Your task to perform on an android device: Is it going to rain tomorrow? Image 0: 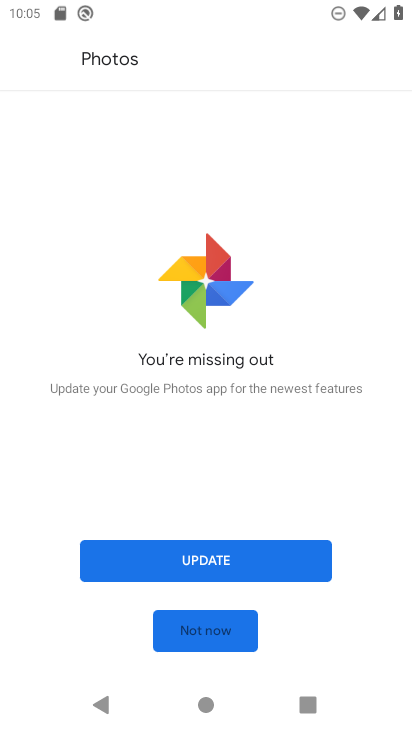
Step 0: click (185, 626)
Your task to perform on an android device: Is it going to rain tomorrow? Image 1: 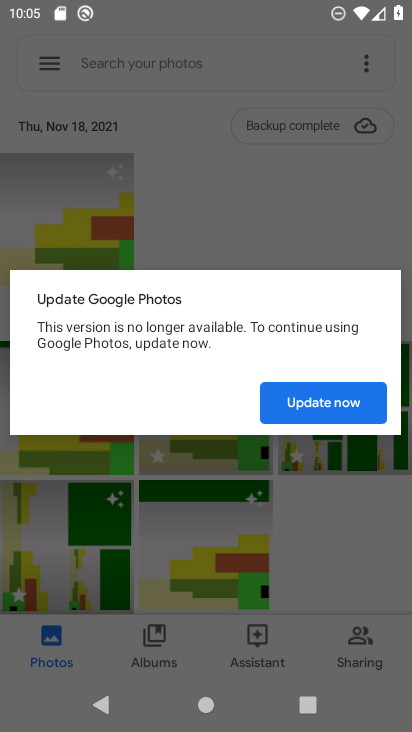
Step 1: click (281, 405)
Your task to perform on an android device: Is it going to rain tomorrow? Image 2: 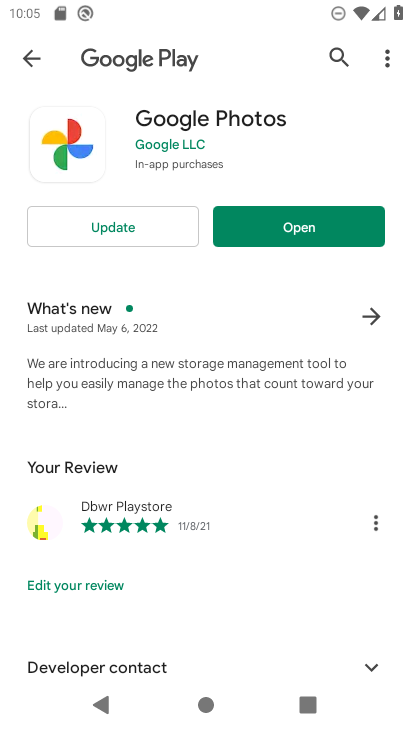
Step 2: press back button
Your task to perform on an android device: Is it going to rain tomorrow? Image 3: 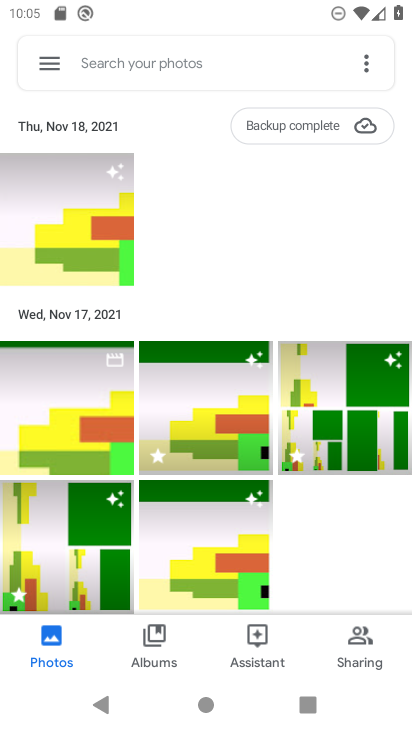
Step 3: press home button
Your task to perform on an android device: Is it going to rain tomorrow? Image 4: 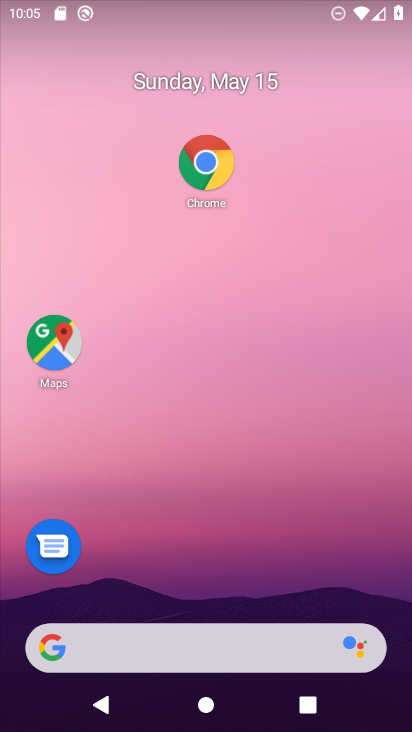
Step 4: drag from (194, 587) to (245, 273)
Your task to perform on an android device: Is it going to rain tomorrow? Image 5: 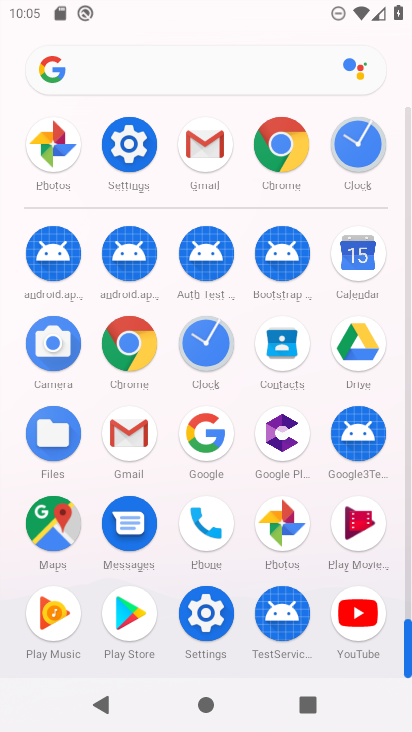
Step 5: click (270, 135)
Your task to perform on an android device: Is it going to rain tomorrow? Image 6: 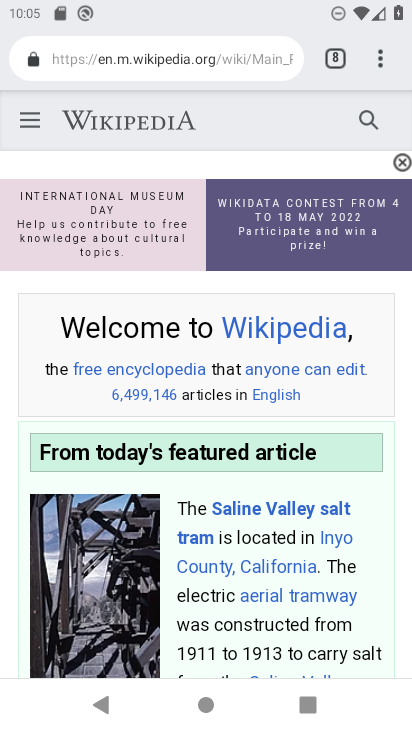
Step 6: click (363, 58)
Your task to perform on an android device: Is it going to rain tomorrow? Image 7: 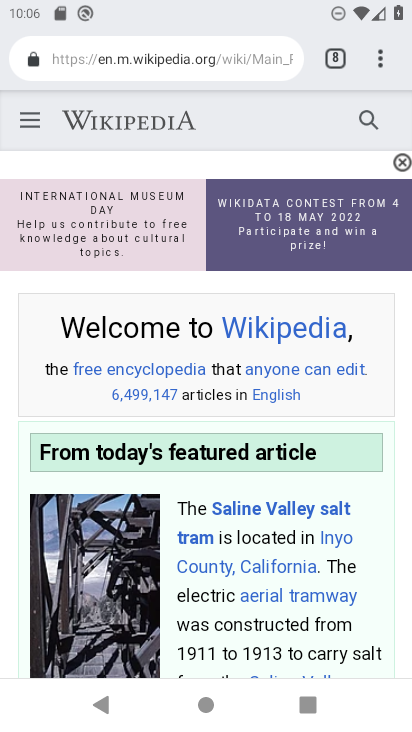
Step 7: click (369, 51)
Your task to perform on an android device: Is it going to rain tomorrow? Image 8: 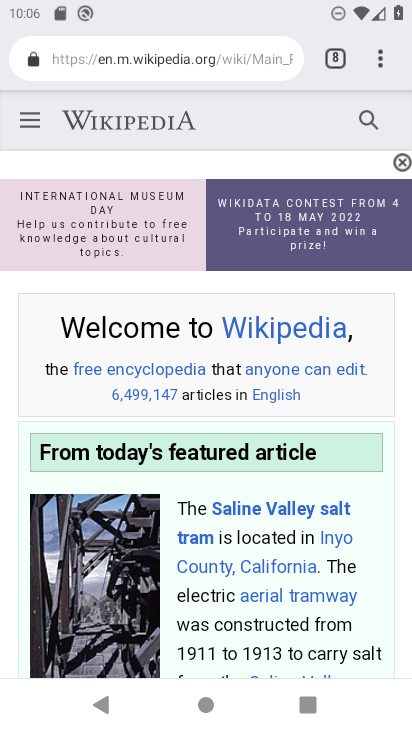
Step 8: click (371, 57)
Your task to perform on an android device: Is it going to rain tomorrow? Image 9: 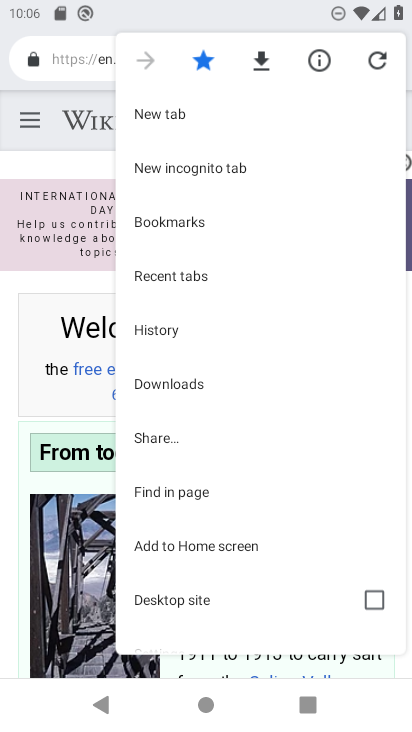
Step 9: click (205, 107)
Your task to perform on an android device: Is it going to rain tomorrow? Image 10: 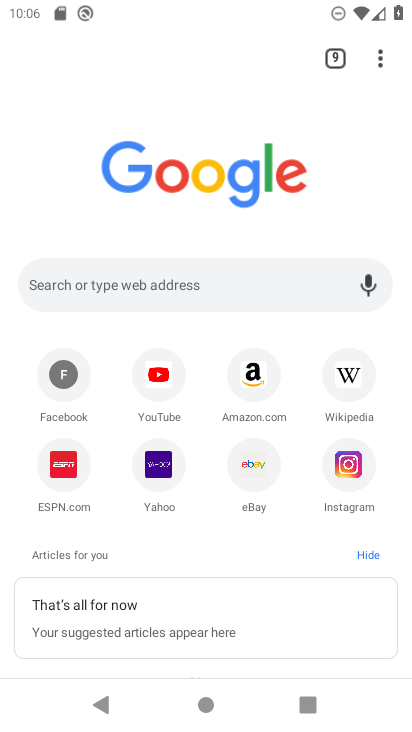
Step 10: click (173, 273)
Your task to perform on an android device: Is it going to rain tomorrow? Image 11: 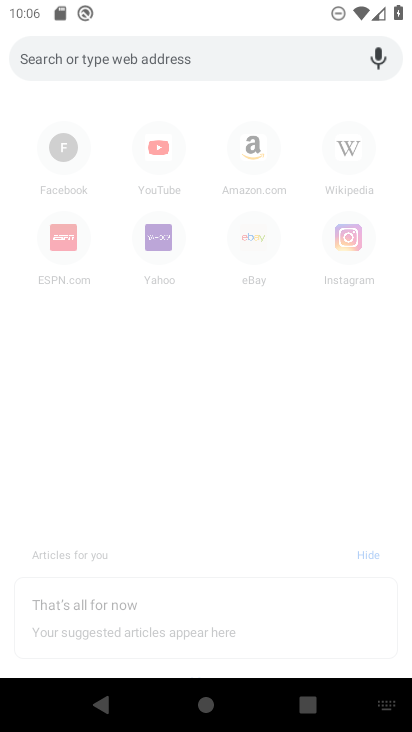
Step 11: type "Is it going to rain tomorrow?"
Your task to perform on an android device: Is it going to rain tomorrow? Image 12: 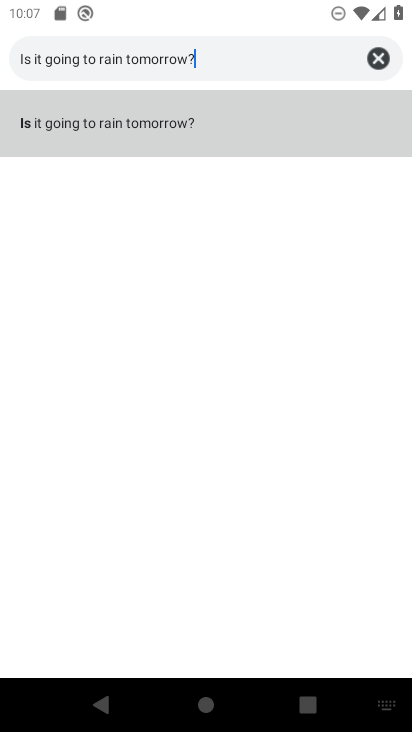
Step 12: click (200, 119)
Your task to perform on an android device: Is it going to rain tomorrow? Image 13: 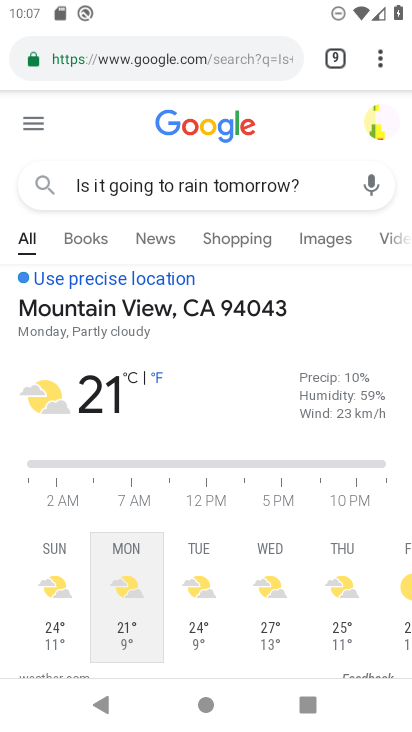
Step 13: task complete